Your task to perform on an android device: change the upload size in google photos Image 0: 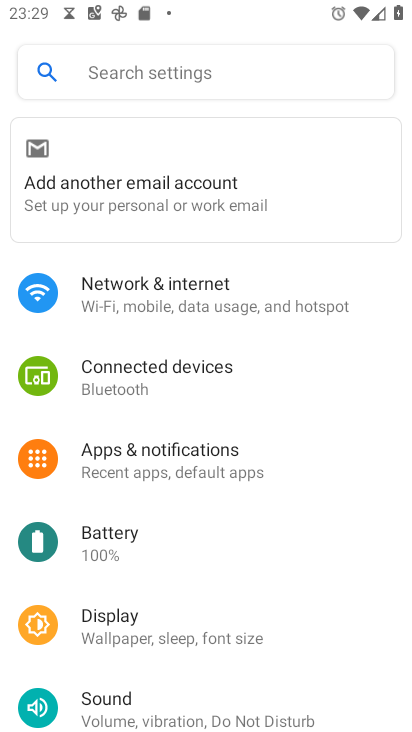
Step 0: press home button
Your task to perform on an android device: change the upload size in google photos Image 1: 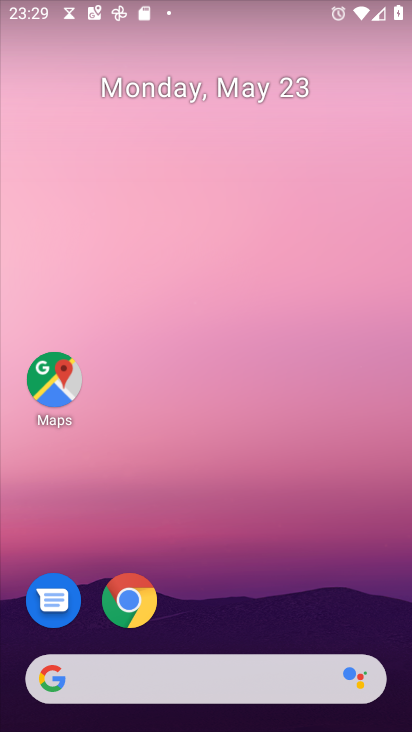
Step 1: drag from (213, 726) to (211, 135)
Your task to perform on an android device: change the upload size in google photos Image 2: 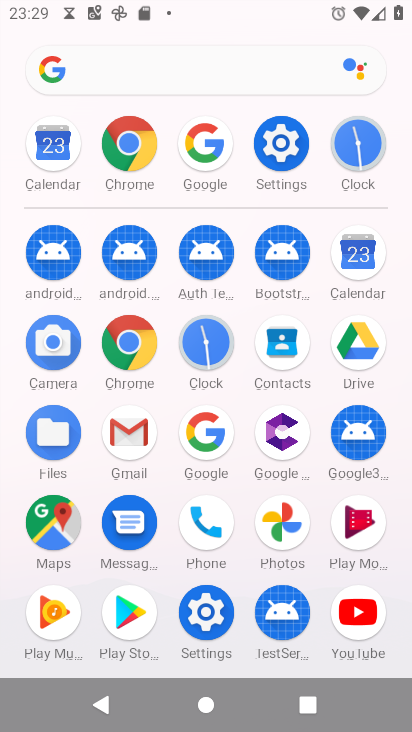
Step 2: click (279, 539)
Your task to perform on an android device: change the upload size in google photos Image 3: 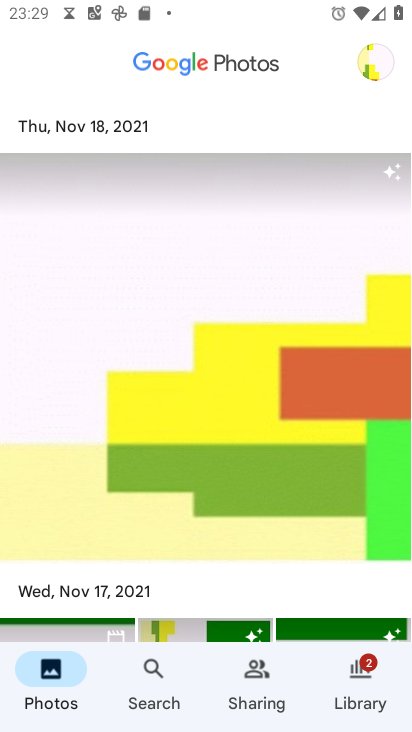
Step 3: click (371, 64)
Your task to perform on an android device: change the upload size in google photos Image 4: 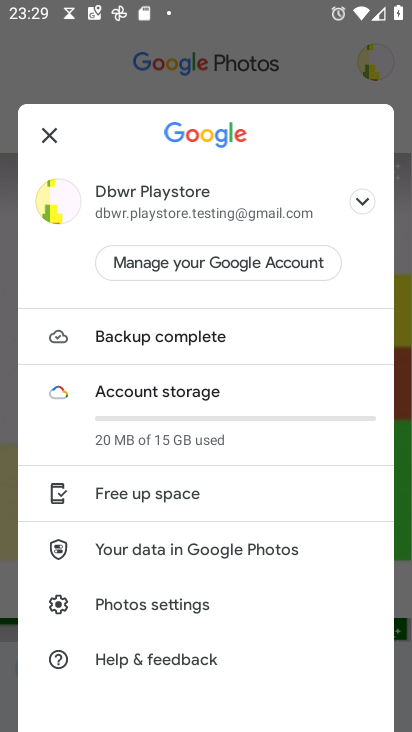
Step 4: click (164, 600)
Your task to perform on an android device: change the upload size in google photos Image 5: 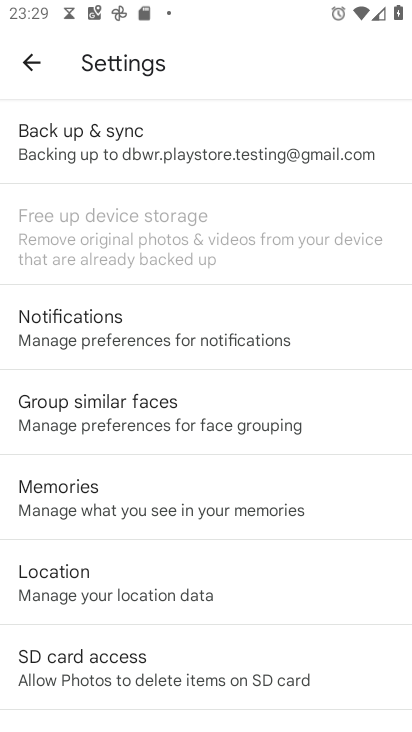
Step 5: click (83, 145)
Your task to perform on an android device: change the upload size in google photos Image 6: 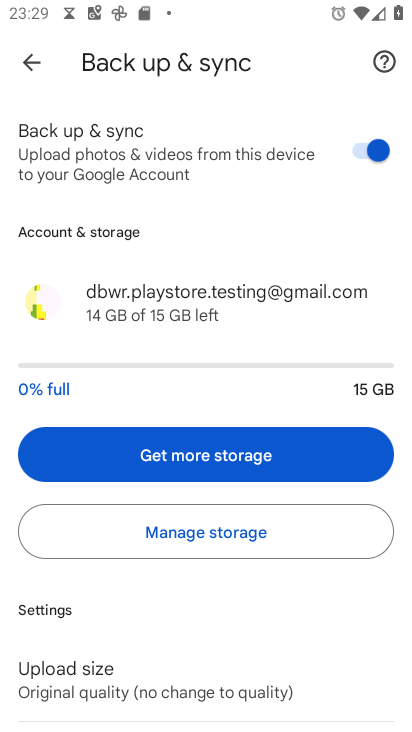
Step 6: drag from (177, 665) to (179, 340)
Your task to perform on an android device: change the upload size in google photos Image 7: 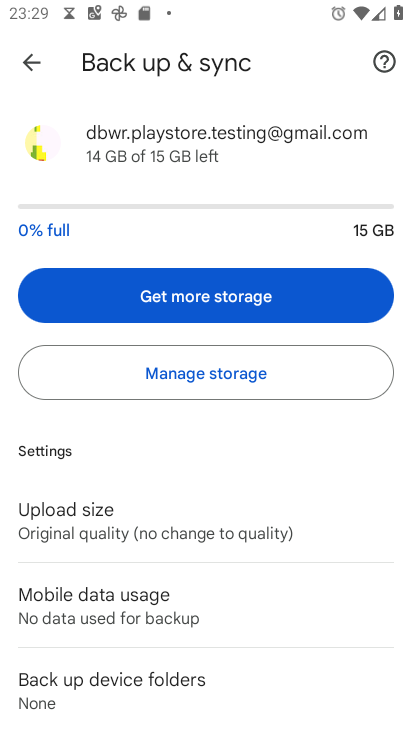
Step 7: click (101, 529)
Your task to perform on an android device: change the upload size in google photos Image 8: 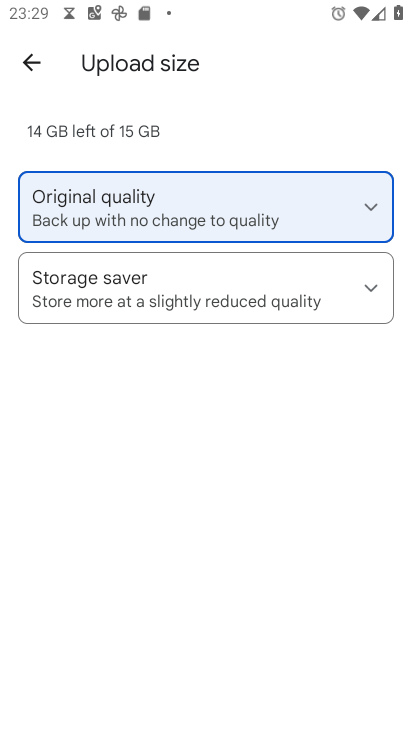
Step 8: click (180, 299)
Your task to perform on an android device: change the upload size in google photos Image 9: 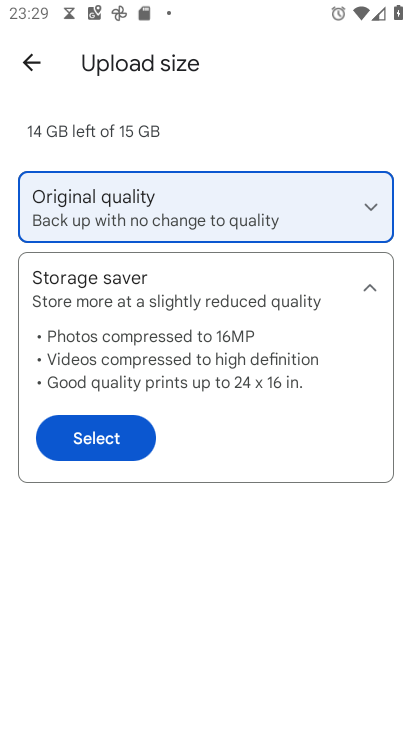
Step 9: click (104, 437)
Your task to perform on an android device: change the upload size in google photos Image 10: 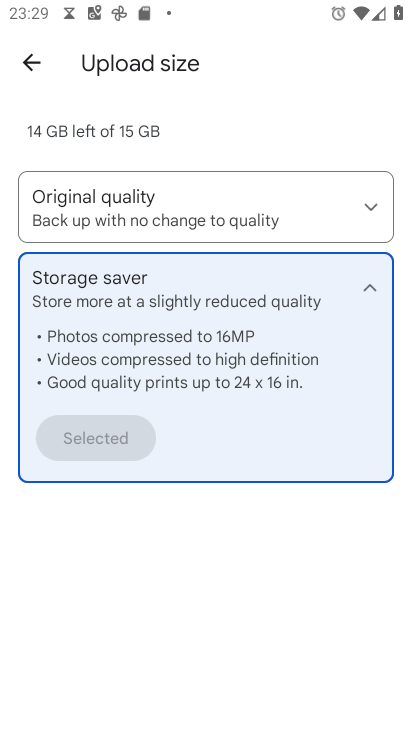
Step 10: task complete